Your task to perform on an android device: Open Chrome and go to settings Image 0: 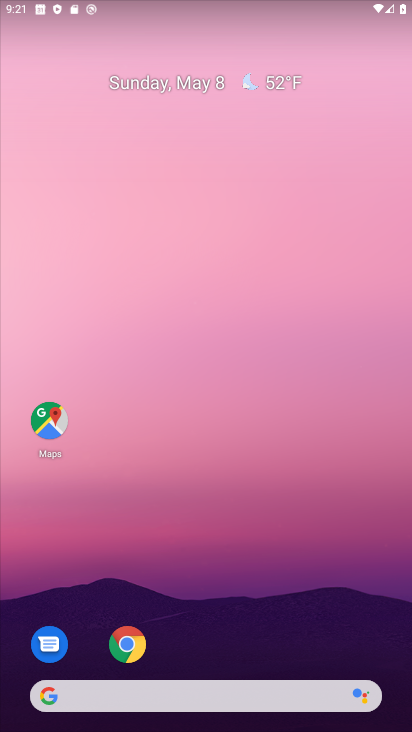
Step 0: click (252, 336)
Your task to perform on an android device: Open Chrome and go to settings Image 1: 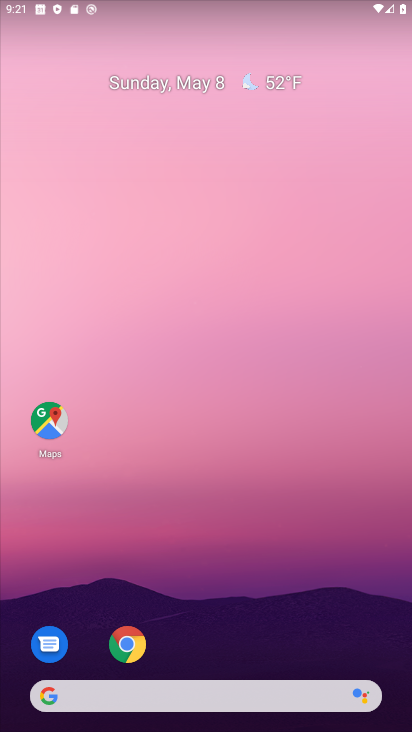
Step 1: drag from (184, 626) to (254, 207)
Your task to perform on an android device: Open Chrome and go to settings Image 2: 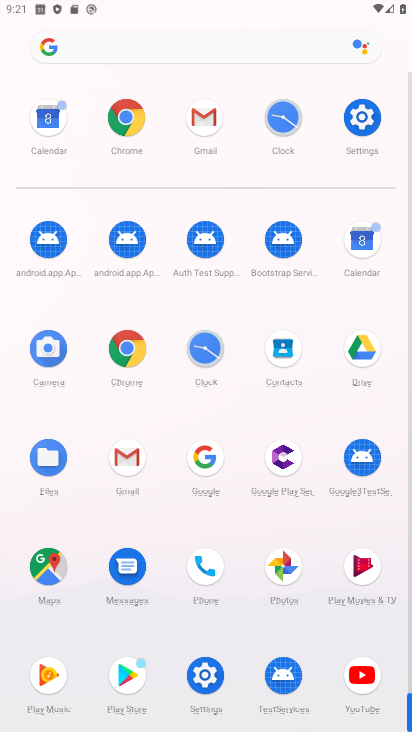
Step 2: click (359, 126)
Your task to perform on an android device: Open Chrome and go to settings Image 3: 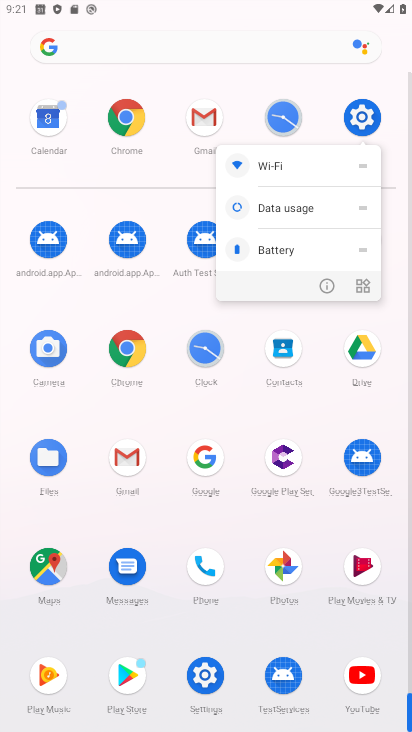
Step 3: click (321, 287)
Your task to perform on an android device: Open Chrome and go to settings Image 4: 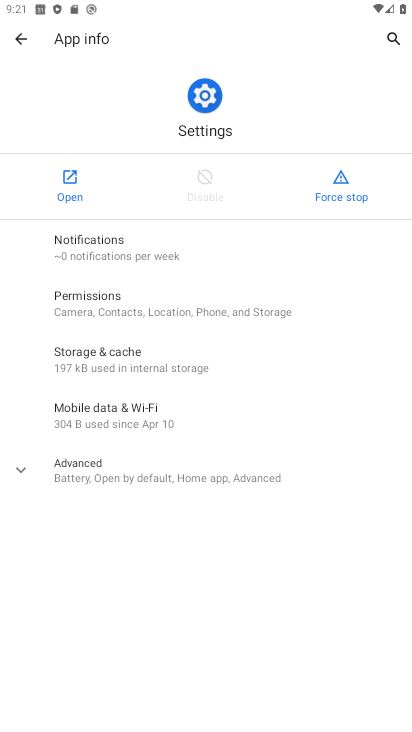
Step 4: press home button
Your task to perform on an android device: Open Chrome and go to settings Image 5: 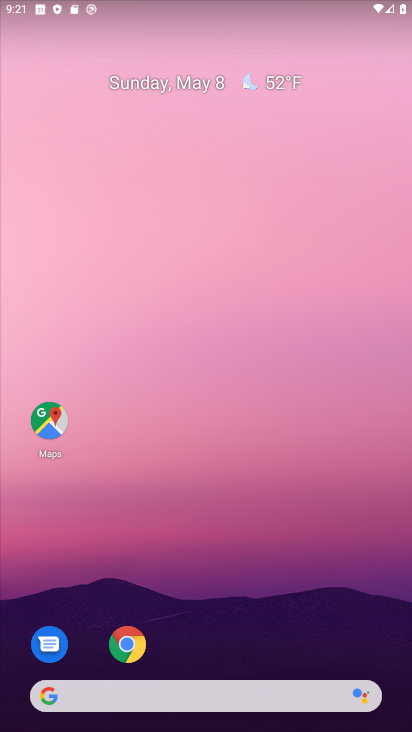
Step 5: click (118, 650)
Your task to perform on an android device: Open Chrome and go to settings Image 6: 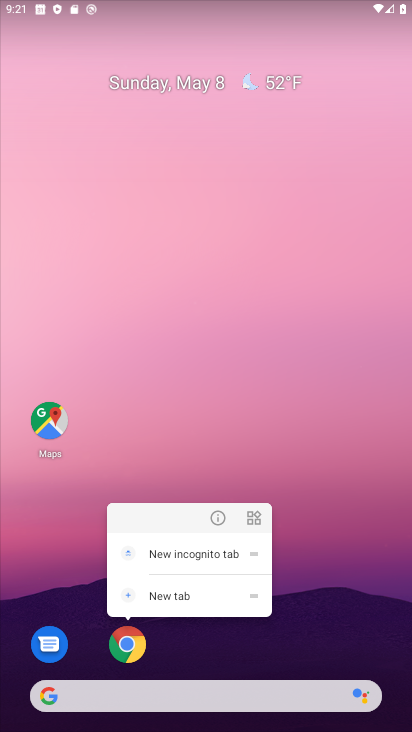
Step 6: click (209, 523)
Your task to perform on an android device: Open Chrome and go to settings Image 7: 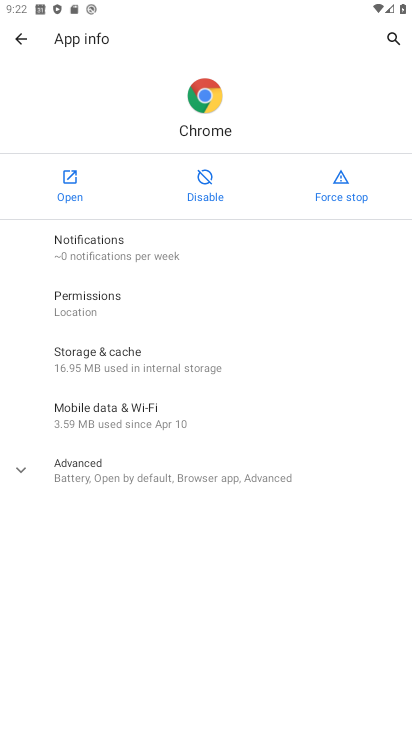
Step 7: click (65, 175)
Your task to perform on an android device: Open Chrome and go to settings Image 8: 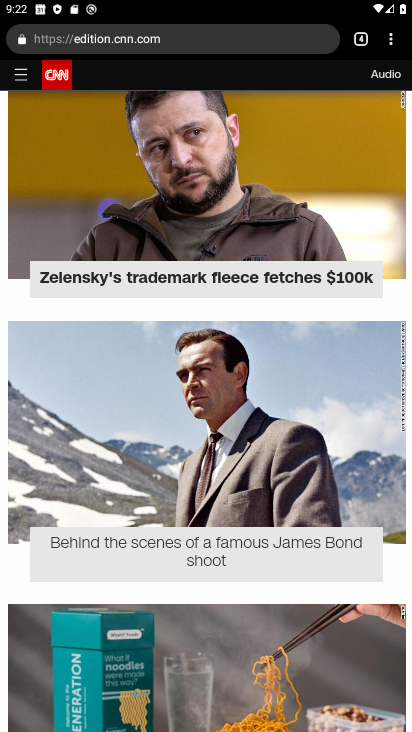
Step 8: task complete